Your task to perform on an android device: turn on airplane mode Image 0: 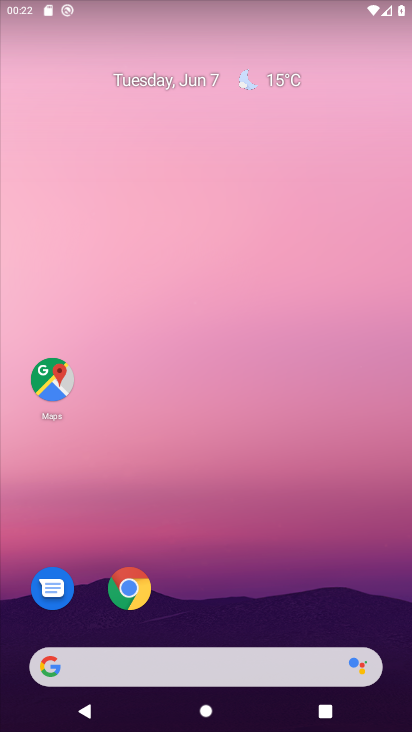
Step 0: drag from (221, 559) to (238, 248)
Your task to perform on an android device: turn on airplane mode Image 1: 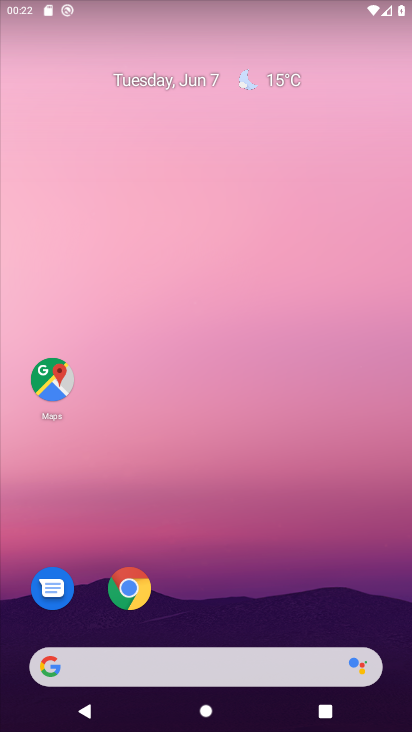
Step 1: drag from (222, 601) to (210, 239)
Your task to perform on an android device: turn on airplane mode Image 2: 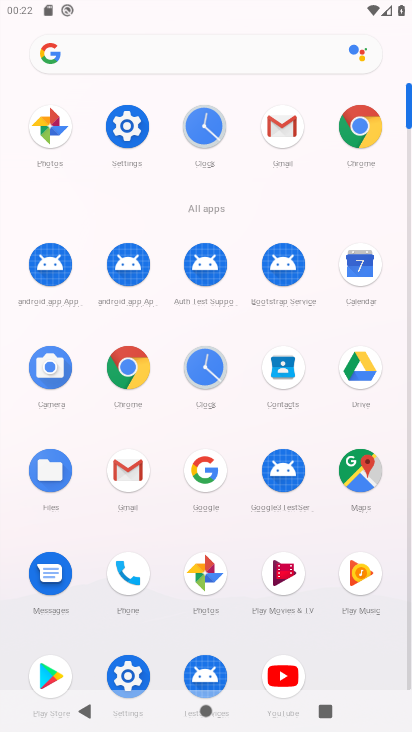
Step 2: click (130, 117)
Your task to perform on an android device: turn on airplane mode Image 3: 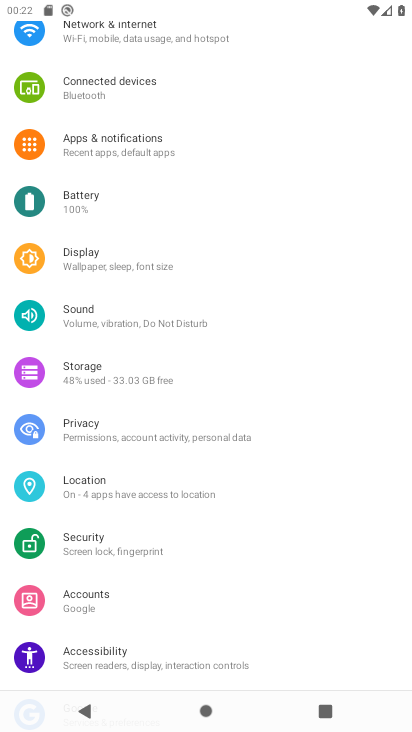
Step 3: drag from (189, 125) to (222, 445)
Your task to perform on an android device: turn on airplane mode Image 4: 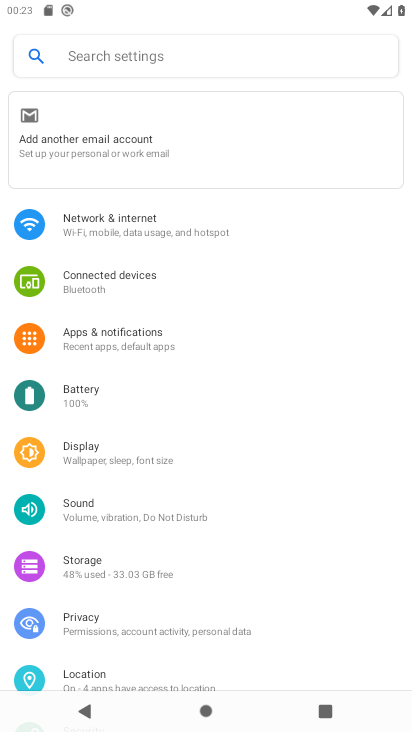
Step 4: click (146, 216)
Your task to perform on an android device: turn on airplane mode Image 5: 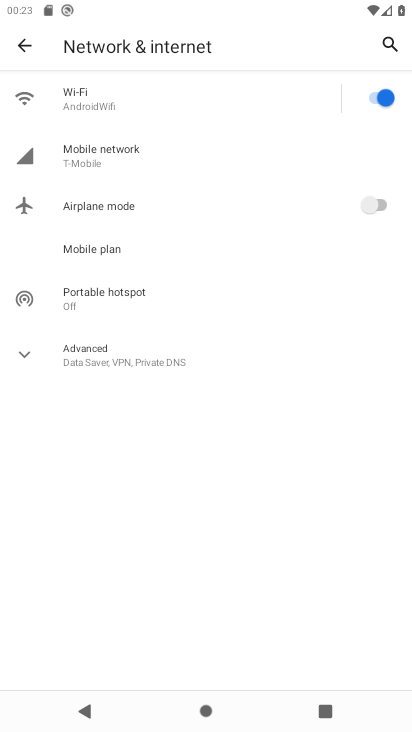
Step 5: click (379, 194)
Your task to perform on an android device: turn on airplane mode Image 6: 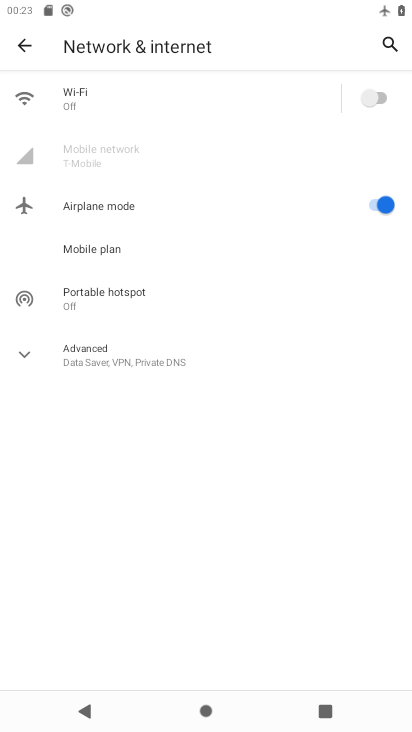
Step 6: task complete